Your task to perform on an android device: Open Chrome and go to settings Image 0: 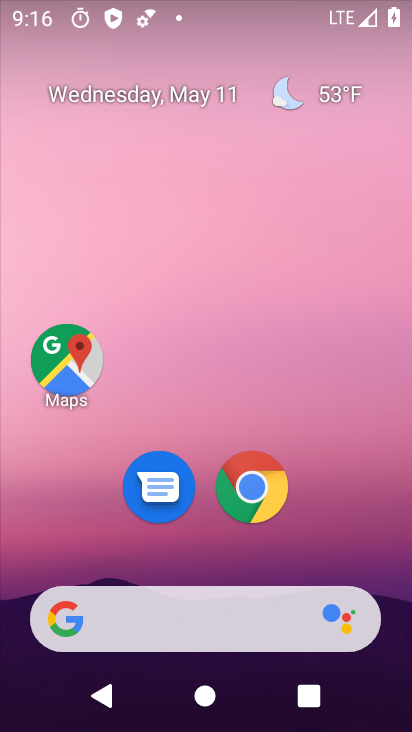
Step 0: click (254, 485)
Your task to perform on an android device: Open Chrome and go to settings Image 1: 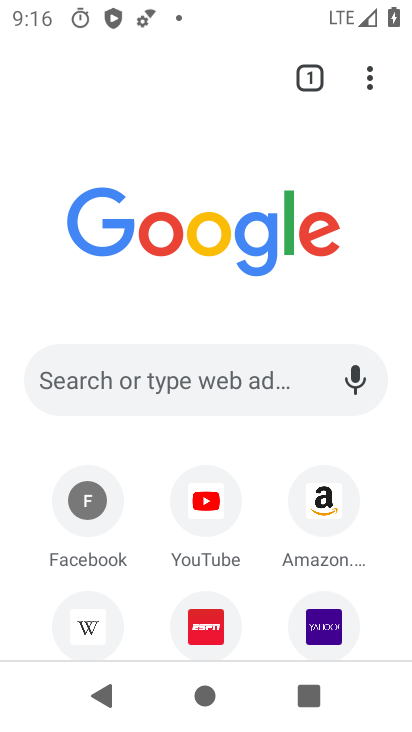
Step 1: click (370, 79)
Your task to perform on an android device: Open Chrome and go to settings Image 2: 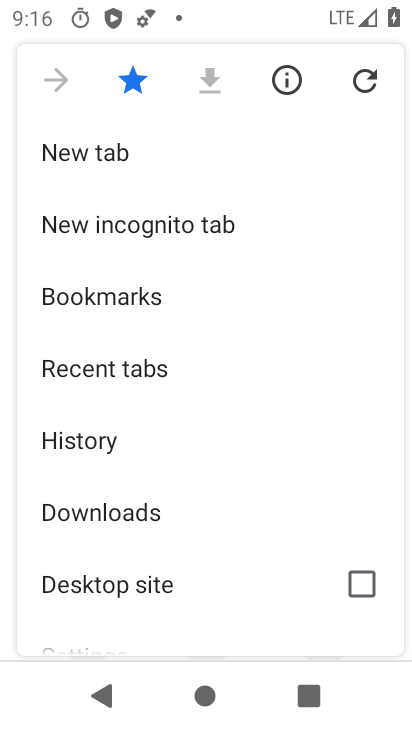
Step 2: drag from (142, 551) to (268, 306)
Your task to perform on an android device: Open Chrome and go to settings Image 3: 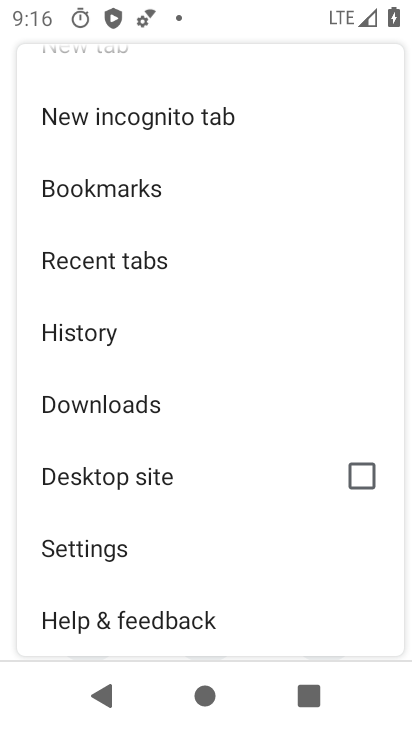
Step 3: click (113, 554)
Your task to perform on an android device: Open Chrome and go to settings Image 4: 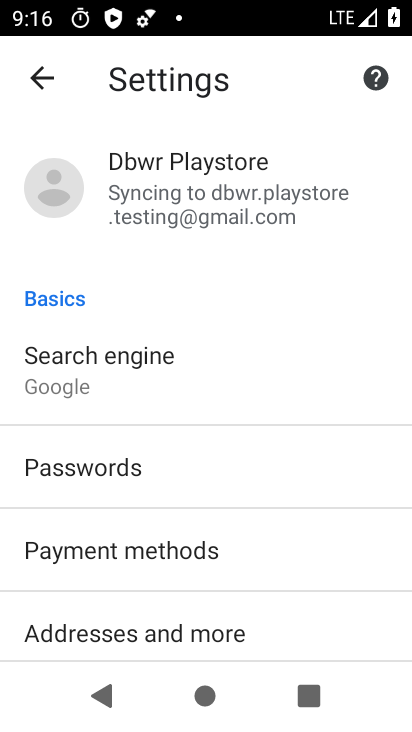
Step 4: task complete